Your task to perform on an android device: Search for pizza restaurants on Maps Image 0: 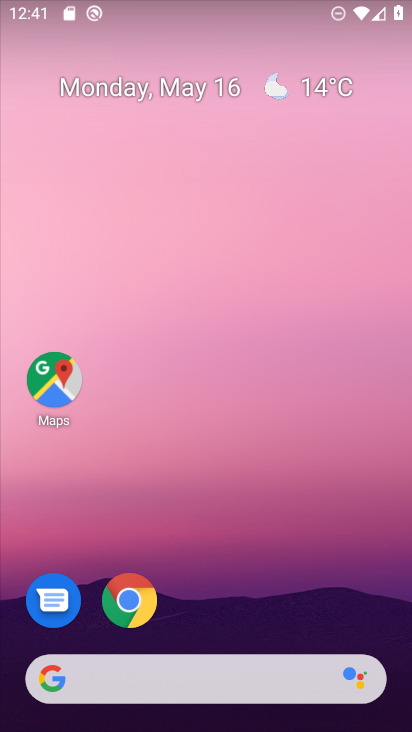
Step 0: press home button
Your task to perform on an android device: Search for pizza restaurants on Maps Image 1: 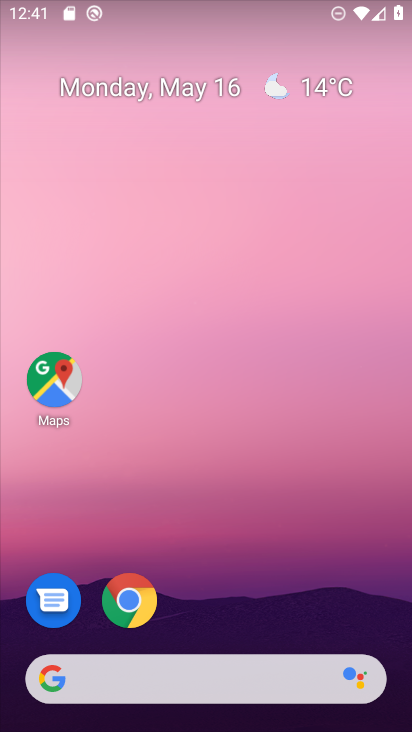
Step 1: click (56, 377)
Your task to perform on an android device: Search for pizza restaurants on Maps Image 2: 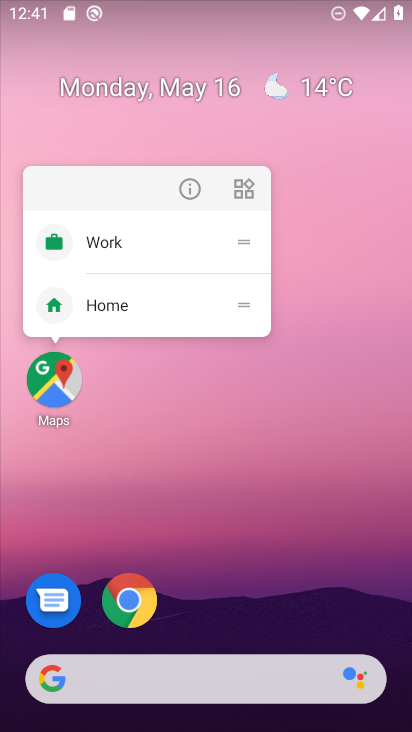
Step 2: click (50, 377)
Your task to perform on an android device: Search for pizza restaurants on Maps Image 3: 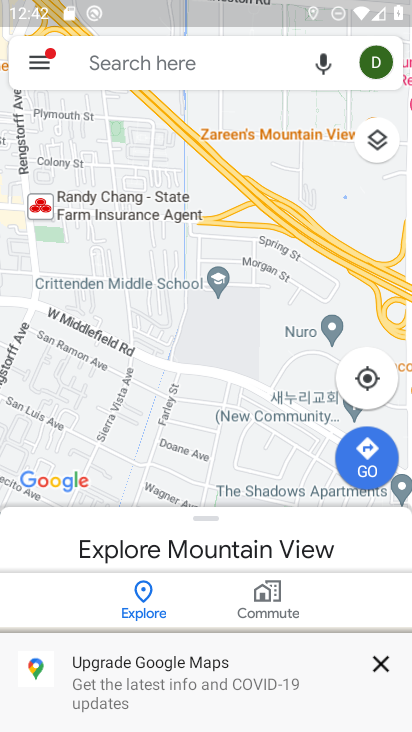
Step 3: click (137, 47)
Your task to perform on an android device: Search for pizza restaurants on Maps Image 4: 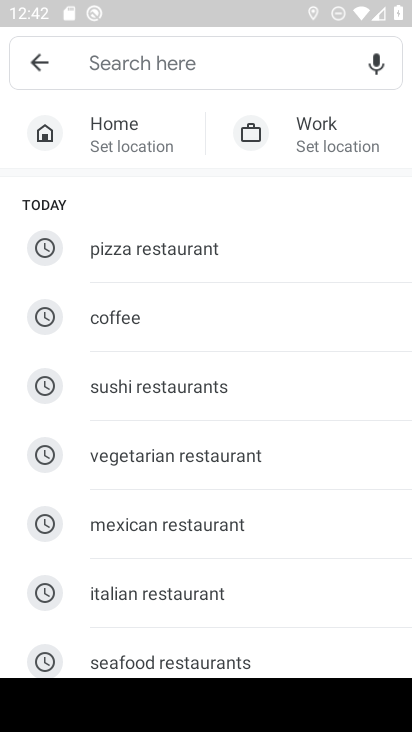
Step 4: type "pizza"
Your task to perform on an android device: Search for pizza restaurants on Maps Image 5: 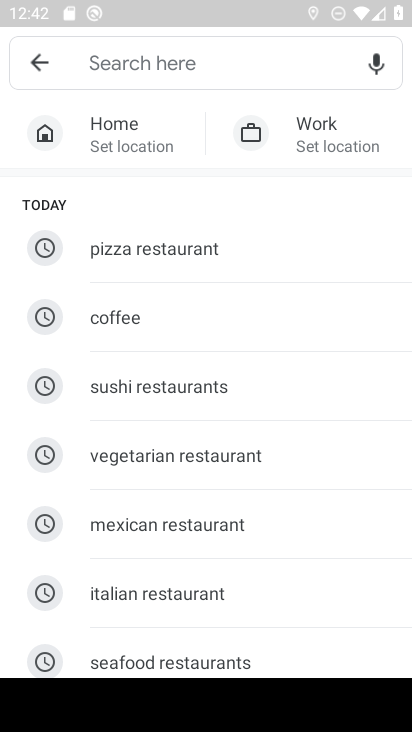
Step 5: click (161, 247)
Your task to perform on an android device: Search for pizza restaurants on Maps Image 6: 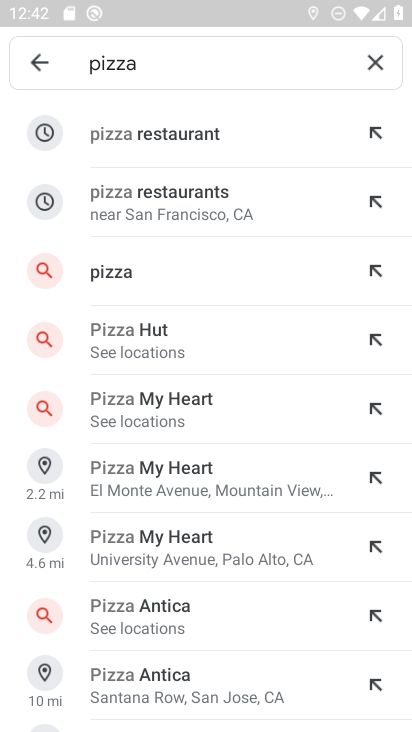
Step 6: click (217, 142)
Your task to perform on an android device: Search for pizza restaurants on Maps Image 7: 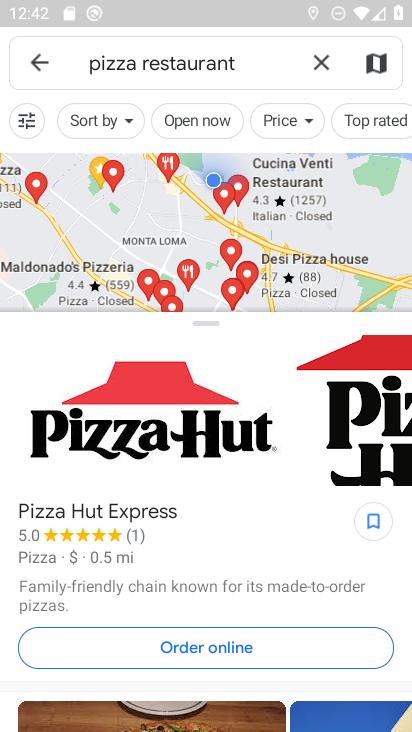
Step 7: task complete